Your task to perform on an android device: Open Maps and search for coffee Image 0: 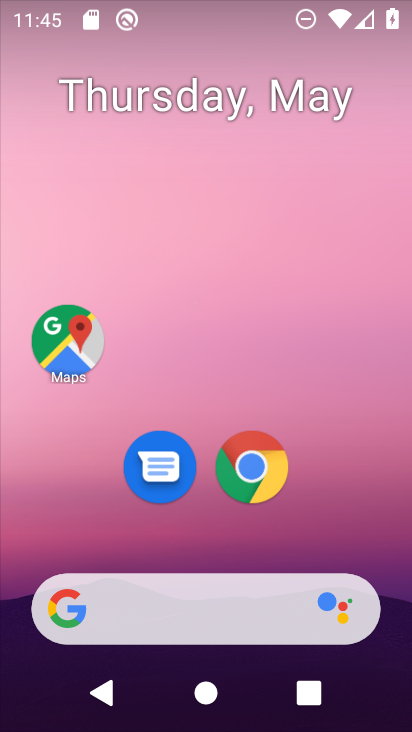
Step 0: drag from (189, 527) to (230, 167)
Your task to perform on an android device: Open Maps and search for coffee Image 1: 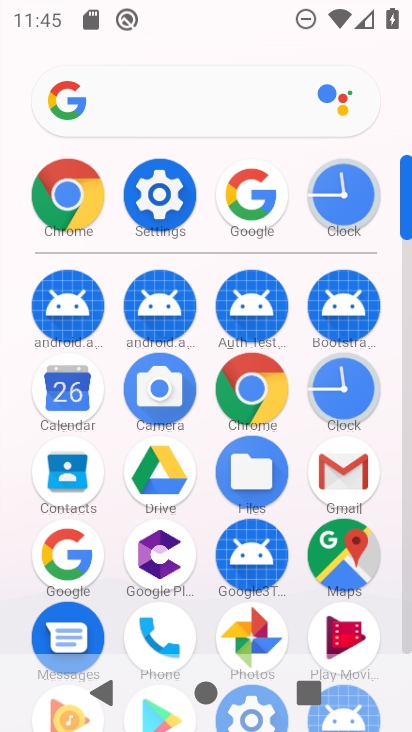
Step 1: drag from (218, 265) to (216, 74)
Your task to perform on an android device: Open Maps and search for coffee Image 2: 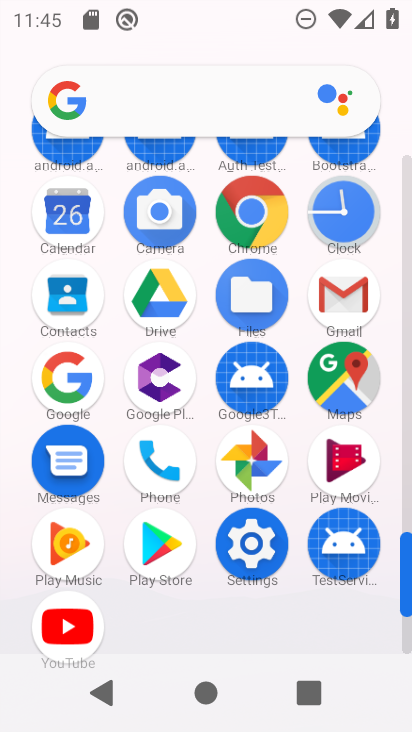
Step 2: click (346, 389)
Your task to perform on an android device: Open Maps and search for coffee Image 3: 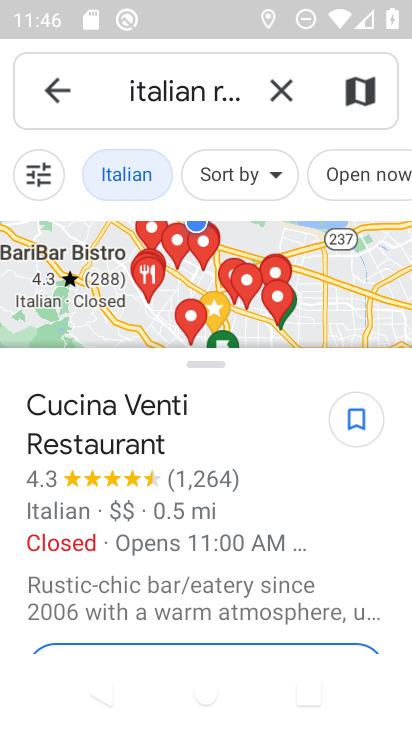
Step 3: click (282, 103)
Your task to perform on an android device: Open Maps and search for coffee Image 4: 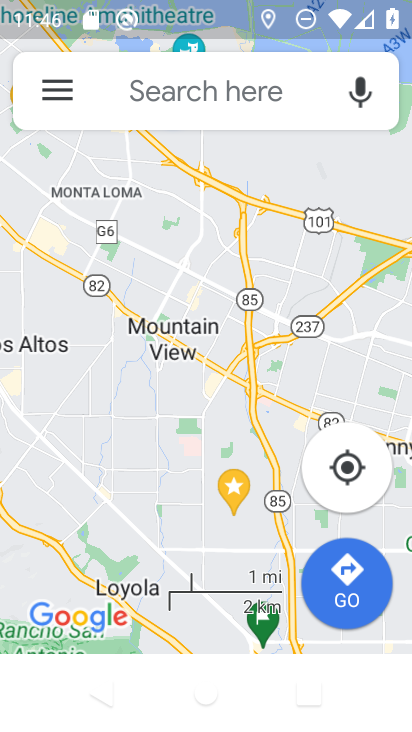
Step 4: click (225, 93)
Your task to perform on an android device: Open Maps and search for coffee Image 5: 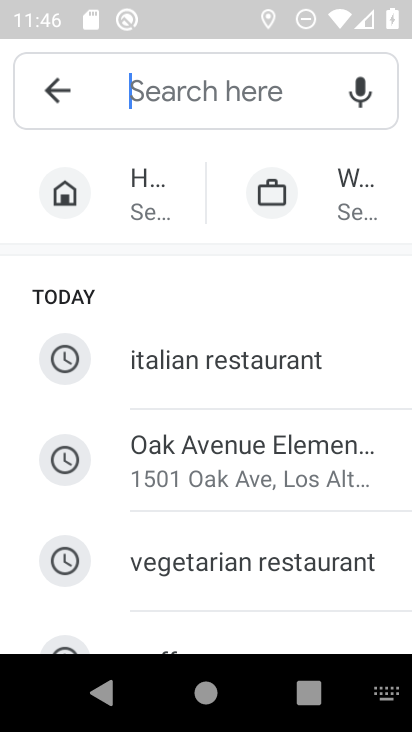
Step 5: type "coffee"
Your task to perform on an android device: Open Maps and search for coffee Image 6: 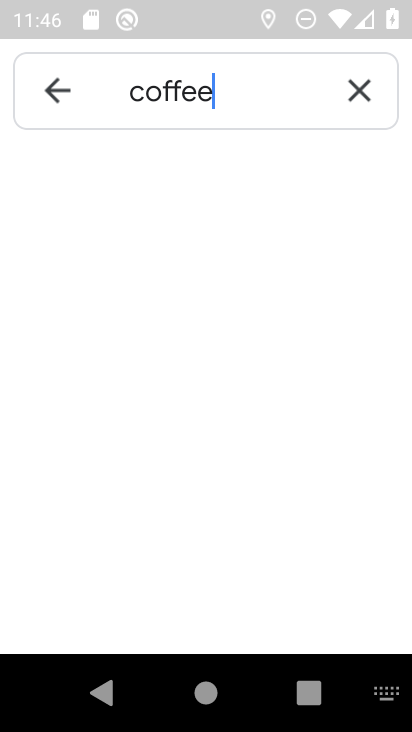
Step 6: type ""
Your task to perform on an android device: Open Maps and search for coffee Image 7: 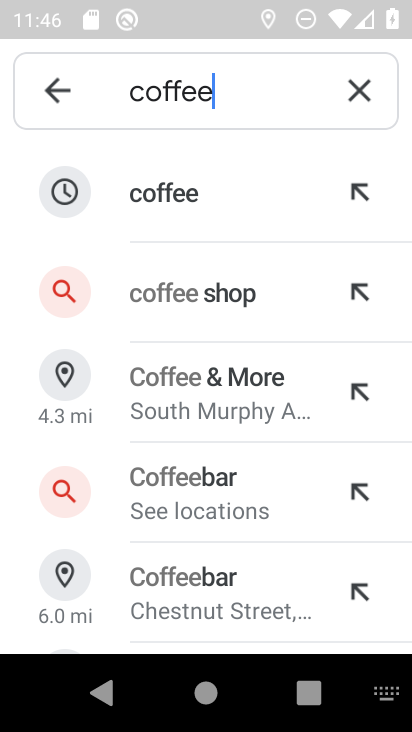
Step 7: click (236, 204)
Your task to perform on an android device: Open Maps and search for coffee Image 8: 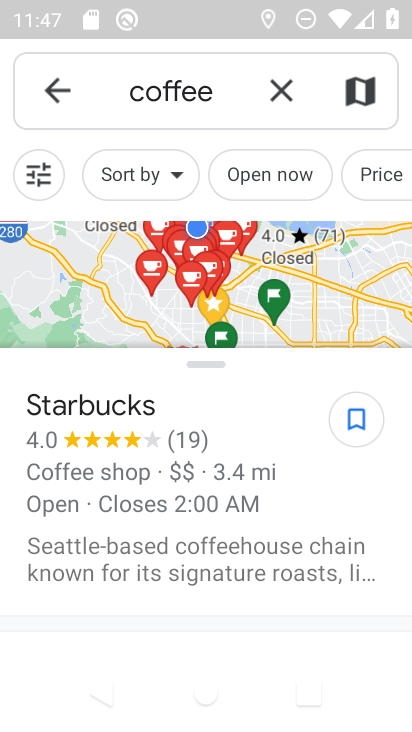
Step 8: task complete